Your task to perform on an android device: Open Reddit.com Image 0: 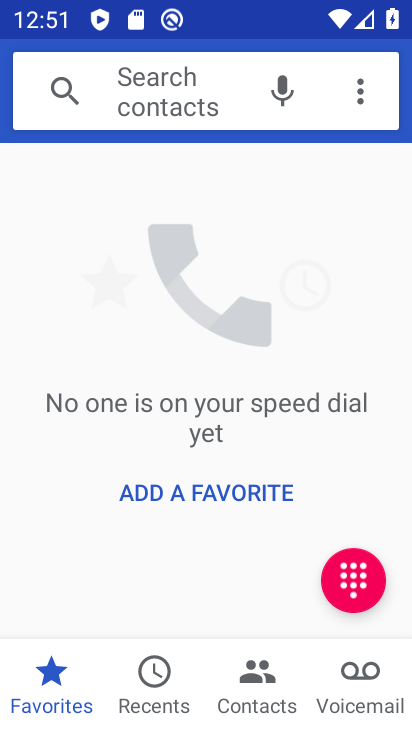
Step 0: press home button
Your task to perform on an android device: Open Reddit.com Image 1: 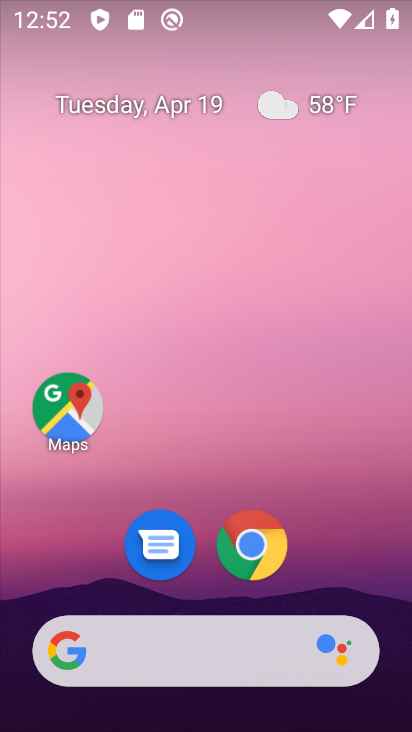
Step 1: click (253, 541)
Your task to perform on an android device: Open Reddit.com Image 2: 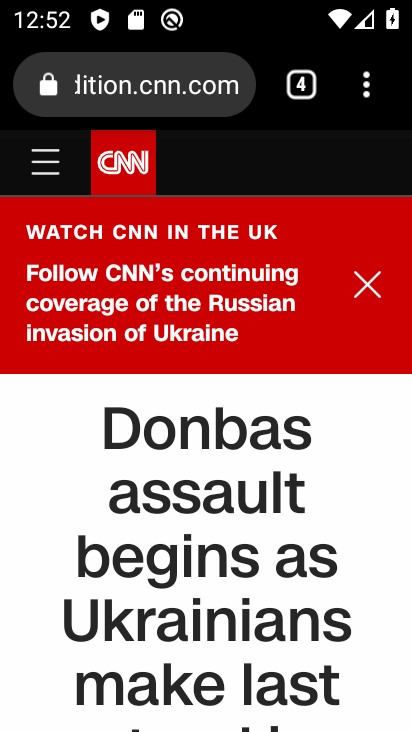
Step 2: click (301, 88)
Your task to perform on an android device: Open Reddit.com Image 3: 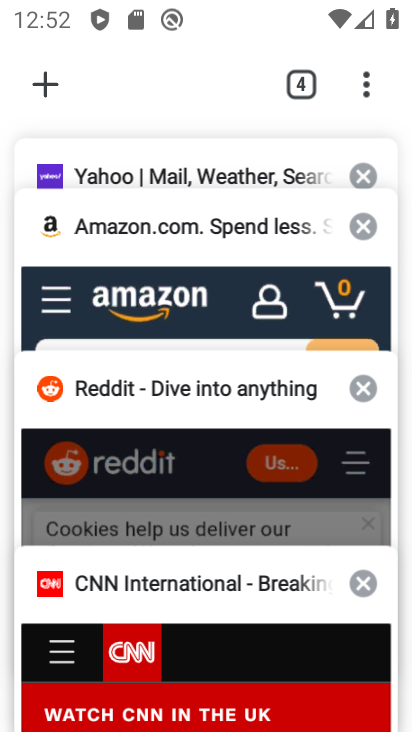
Step 3: click (100, 396)
Your task to perform on an android device: Open Reddit.com Image 4: 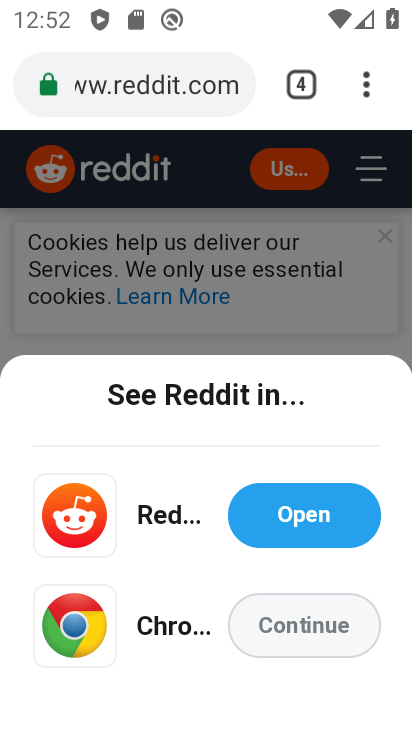
Step 4: click (329, 626)
Your task to perform on an android device: Open Reddit.com Image 5: 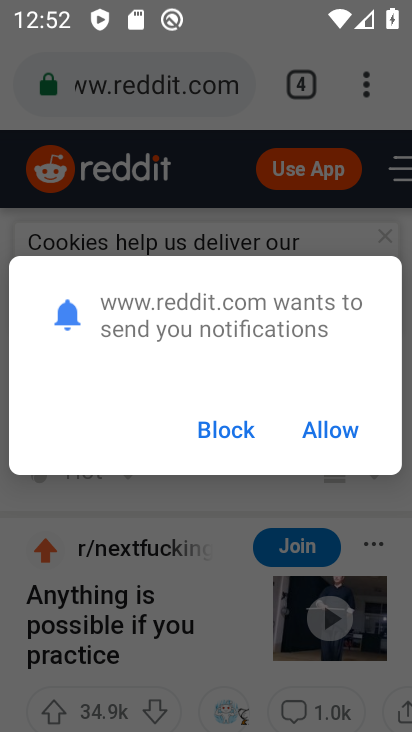
Step 5: click (231, 429)
Your task to perform on an android device: Open Reddit.com Image 6: 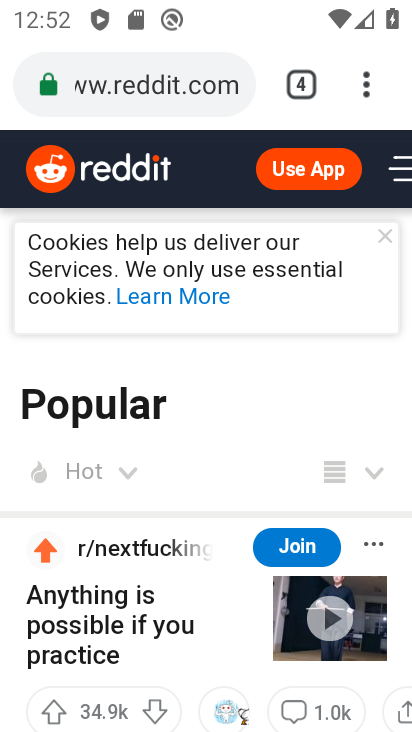
Step 6: task complete